Your task to perform on an android device: Open the calendar app, open the side menu, and click the "Day" option Image 0: 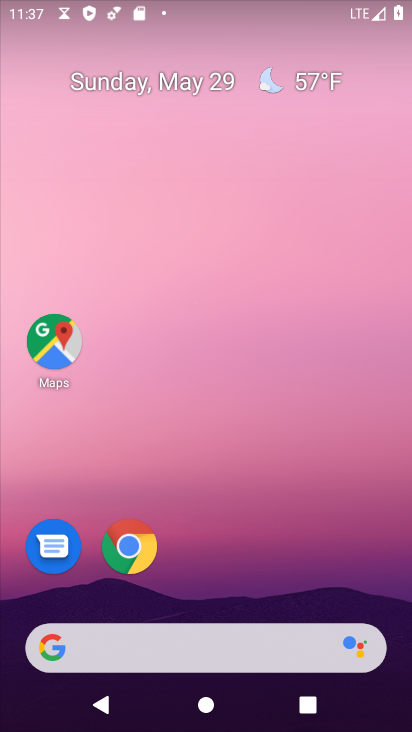
Step 0: press home button
Your task to perform on an android device: Open the calendar app, open the side menu, and click the "Day" option Image 1: 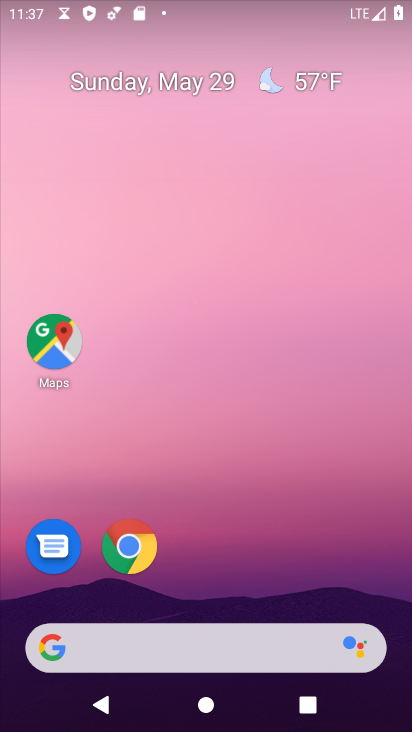
Step 1: drag from (191, 660) to (385, 10)
Your task to perform on an android device: Open the calendar app, open the side menu, and click the "Day" option Image 2: 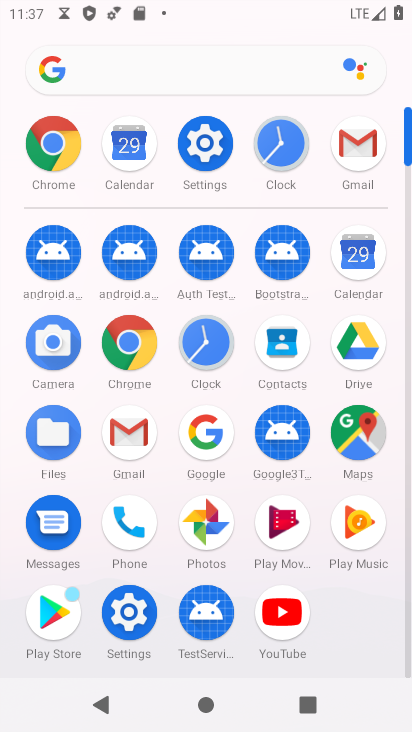
Step 2: click (363, 259)
Your task to perform on an android device: Open the calendar app, open the side menu, and click the "Day" option Image 3: 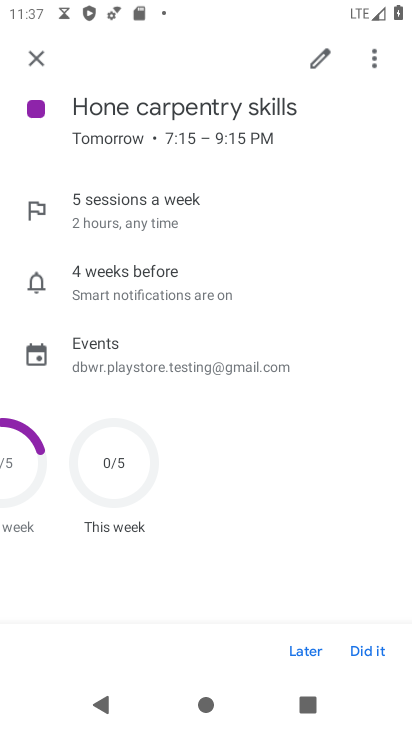
Step 3: click (31, 53)
Your task to perform on an android device: Open the calendar app, open the side menu, and click the "Day" option Image 4: 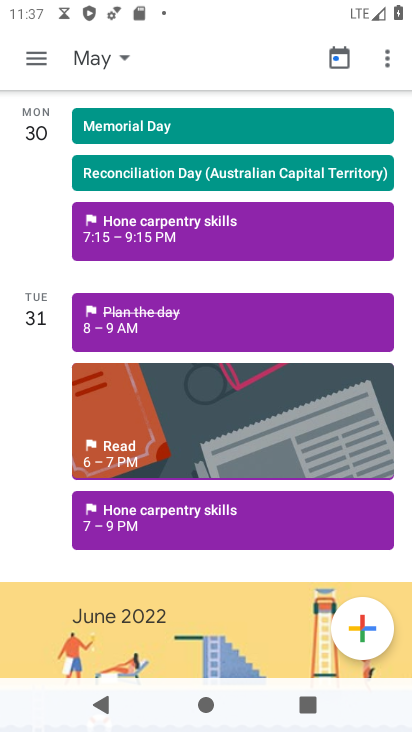
Step 4: click (36, 55)
Your task to perform on an android device: Open the calendar app, open the side menu, and click the "Day" option Image 5: 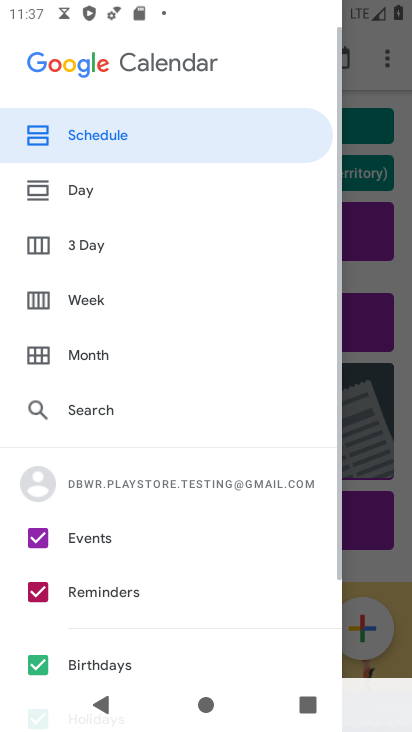
Step 5: click (85, 183)
Your task to perform on an android device: Open the calendar app, open the side menu, and click the "Day" option Image 6: 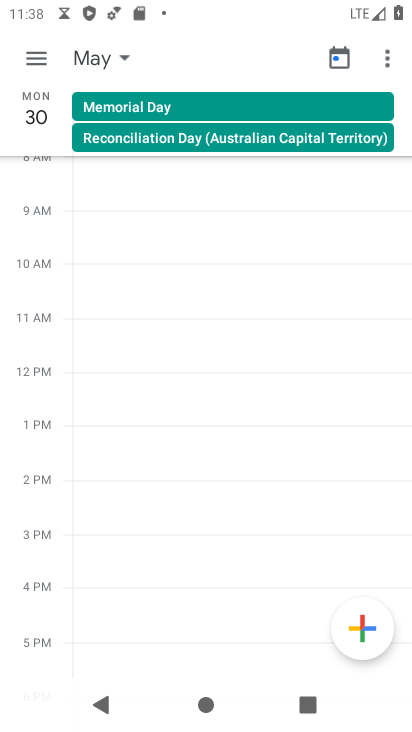
Step 6: task complete